Your task to perform on an android device: Go to Wikipedia Image 0: 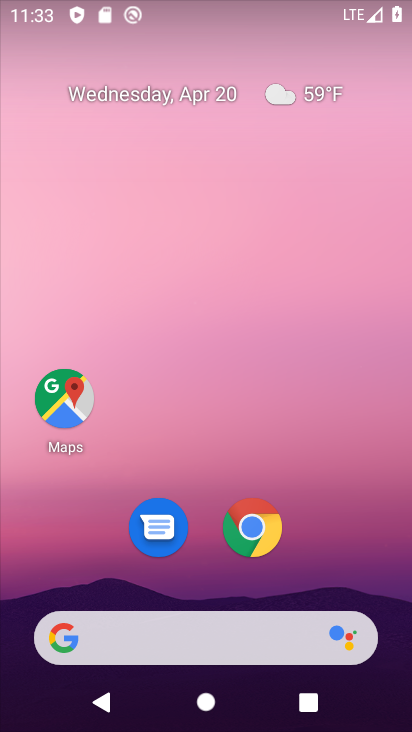
Step 0: drag from (344, 305) to (350, 105)
Your task to perform on an android device: Go to Wikipedia Image 1: 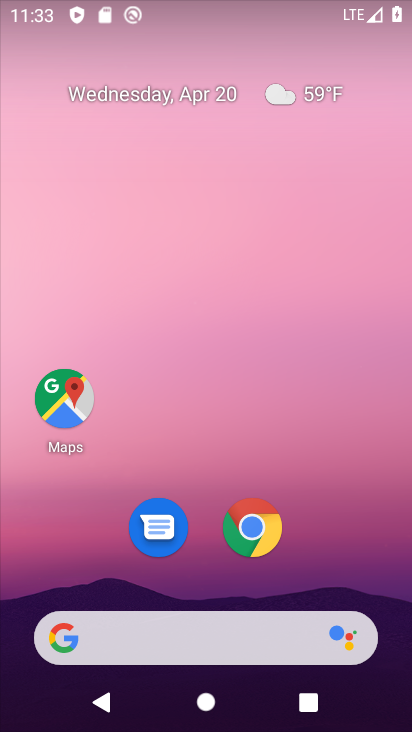
Step 1: drag from (347, 548) to (376, 153)
Your task to perform on an android device: Go to Wikipedia Image 2: 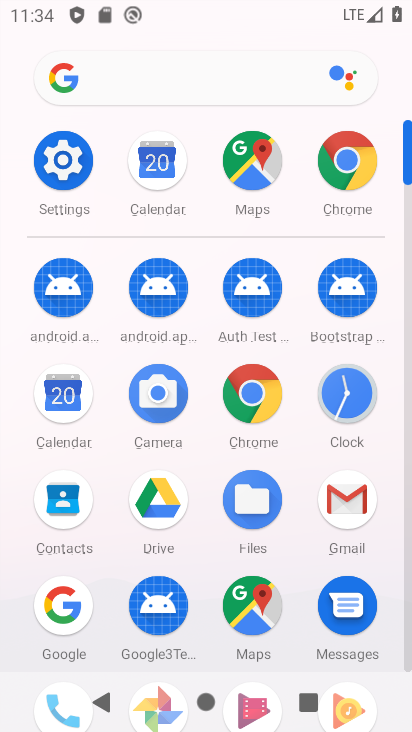
Step 2: click (263, 404)
Your task to perform on an android device: Go to Wikipedia Image 3: 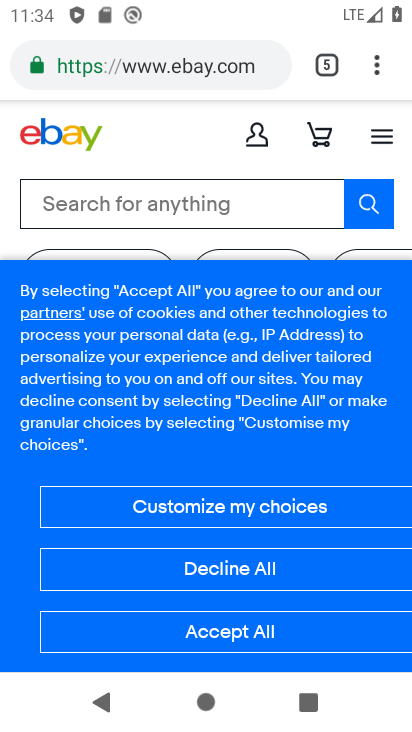
Step 3: click (325, 69)
Your task to perform on an android device: Go to Wikipedia Image 4: 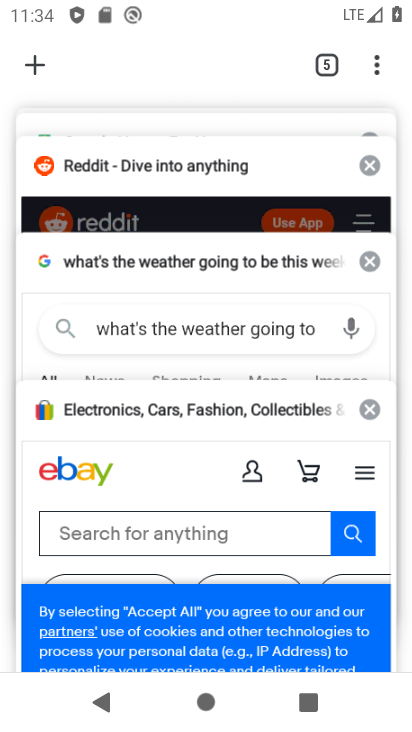
Step 4: click (43, 70)
Your task to perform on an android device: Go to Wikipedia Image 5: 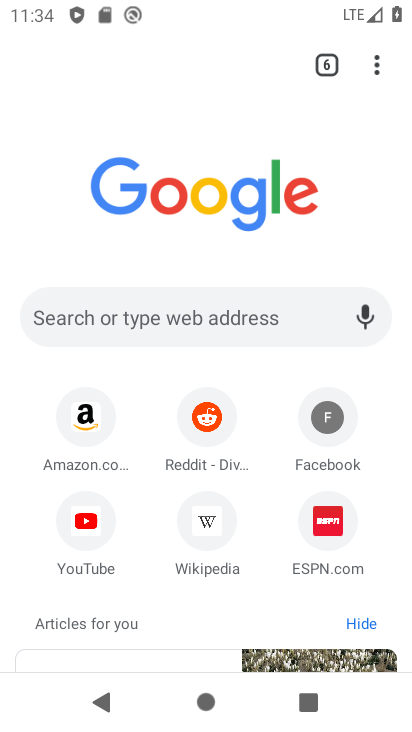
Step 5: click (199, 318)
Your task to perform on an android device: Go to Wikipedia Image 6: 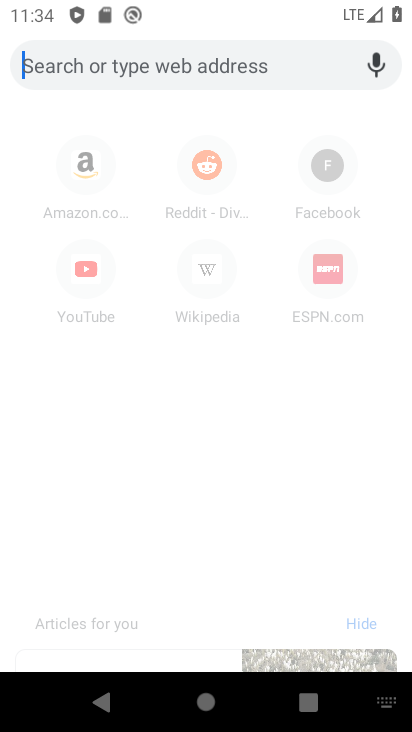
Step 6: click (127, 49)
Your task to perform on an android device: Go to Wikipedia Image 7: 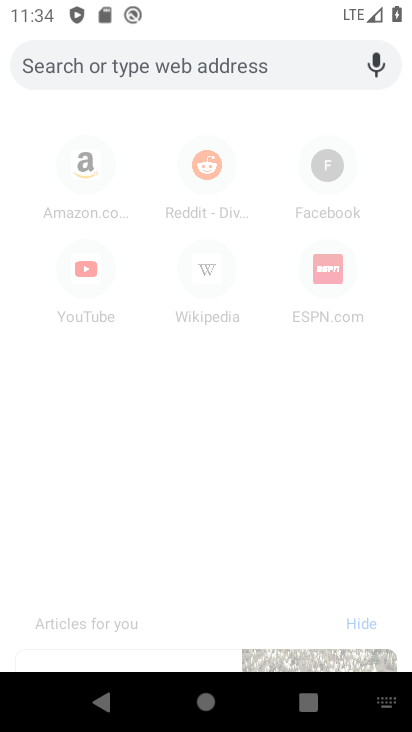
Step 7: type "wikipedia"
Your task to perform on an android device: Go to Wikipedia Image 8: 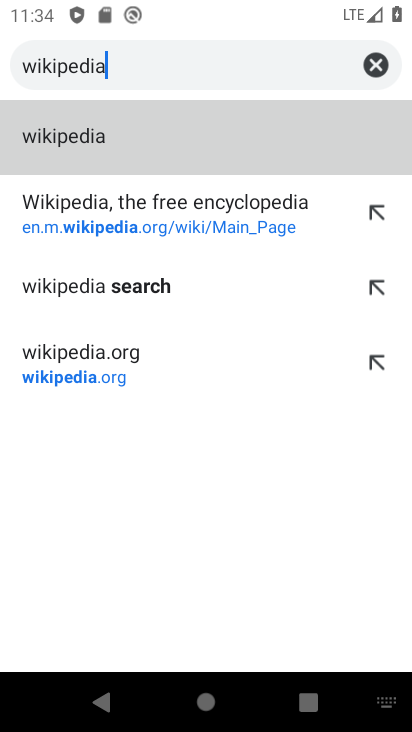
Step 8: click (200, 208)
Your task to perform on an android device: Go to Wikipedia Image 9: 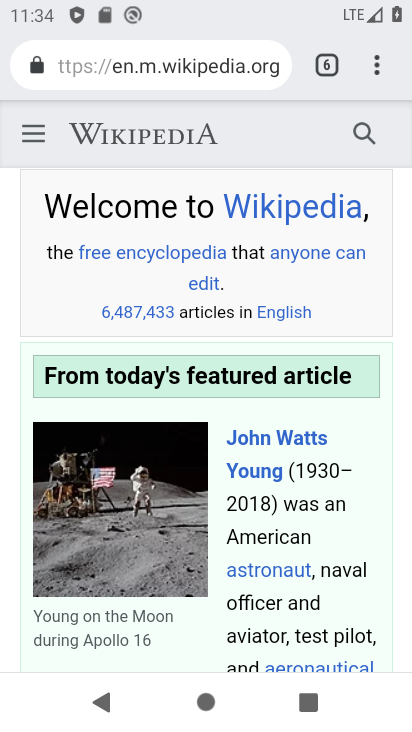
Step 9: task complete